Your task to perform on an android device: turn off airplane mode Image 0: 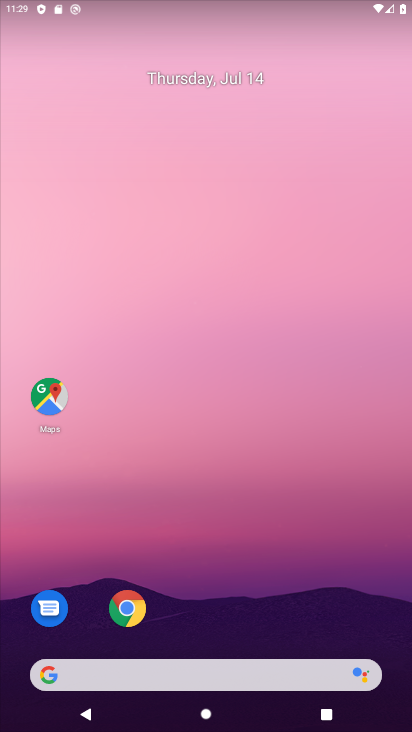
Step 0: press home button
Your task to perform on an android device: turn off airplane mode Image 1: 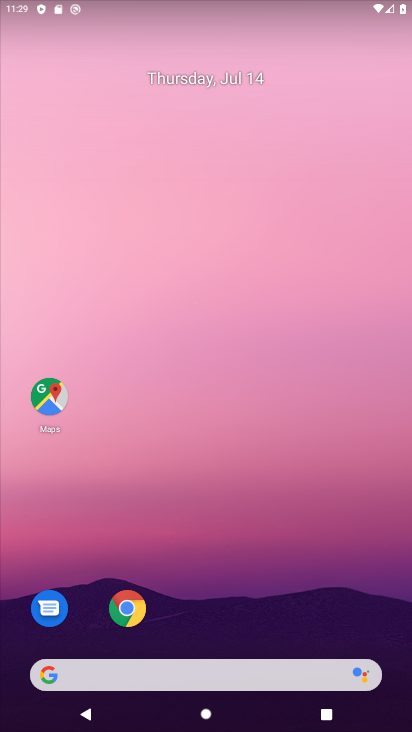
Step 1: drag from (193, 187) to (215, 70)
Your task to perform on an android device: turn off airplane mode Image 2: 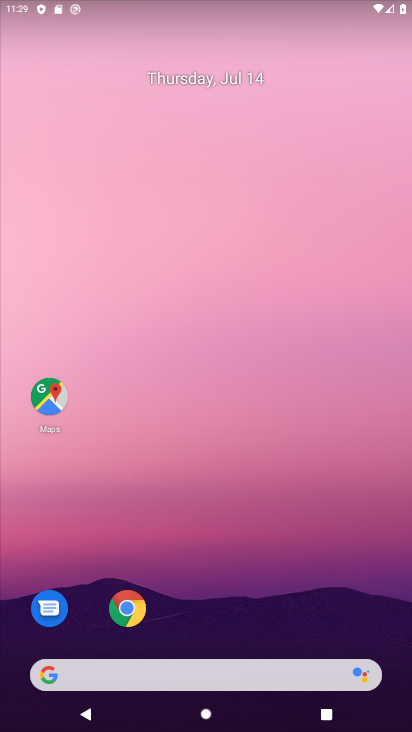
Step 2: drag from (136, 324) to (266, 0)
Your task to perform on an android device: turn off airplane mode Image 3: 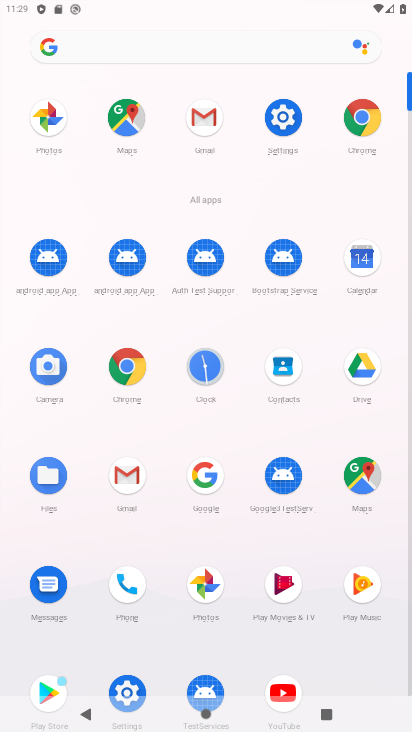
Step 3: click (119, 693)
Your task to perform on an android device: turn off airplane mode Image 4: 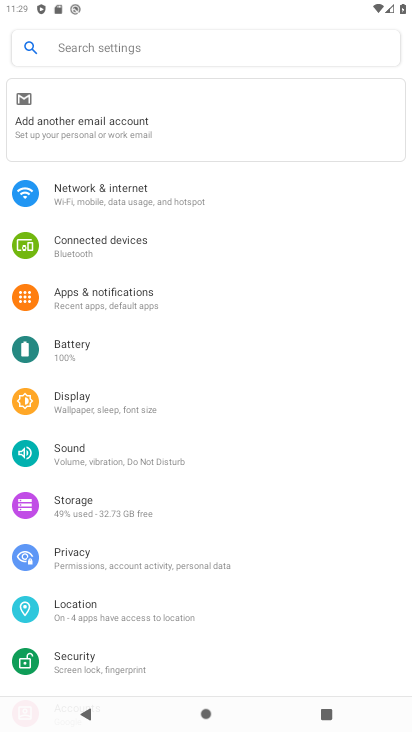
Step 4: click (93, 191)
Your task to perform on an android device: turn off airplane mode Image 5: 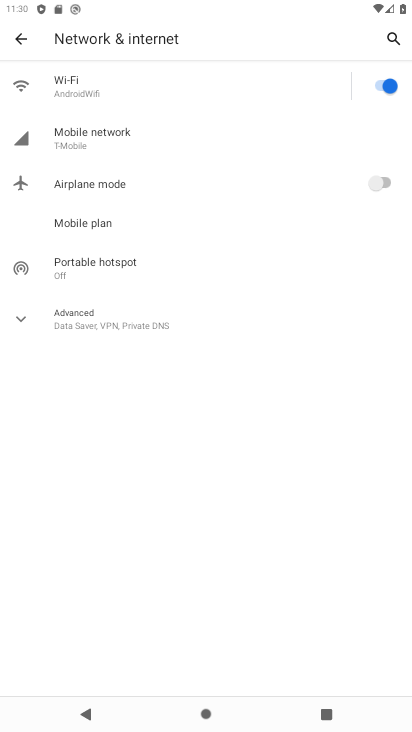
Step 5: task complete